Your task to perform on an android device: Show the shopping cart on newegg.com. Image 0: 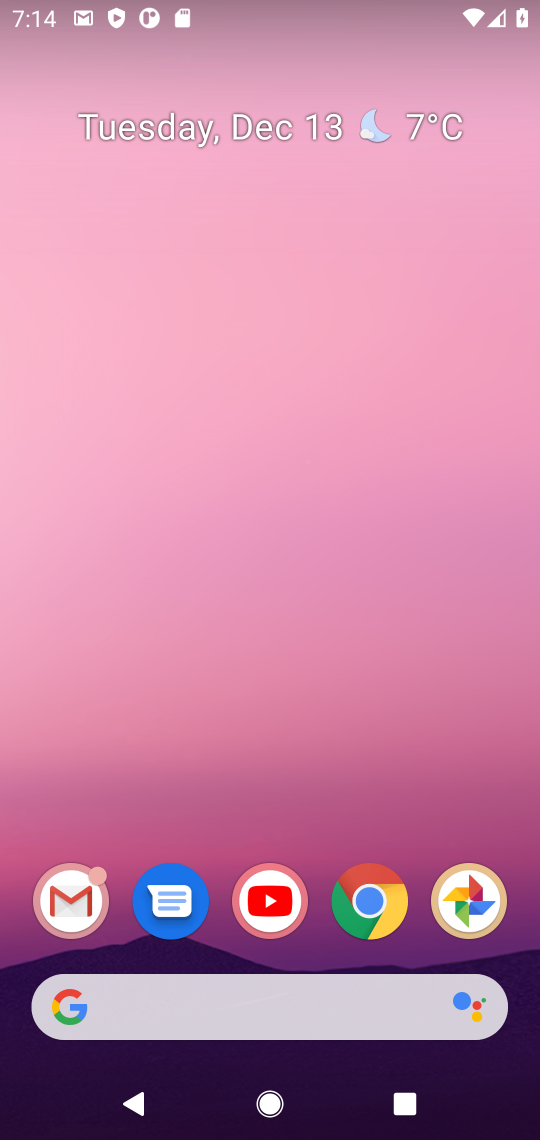
Step 0: click (358, 924)
Your task to perform on an android device: Show the shopping cart on newegg.com. Image 1: 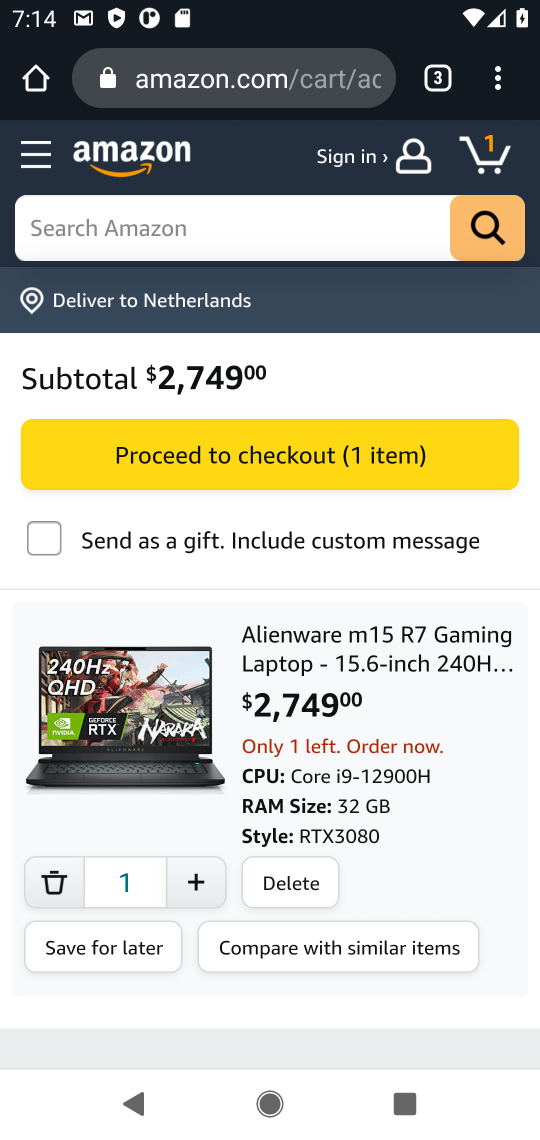
Step 1: press home button
Your task to perform on an android device: Show the shopping cart on newegg.com. Image 2: 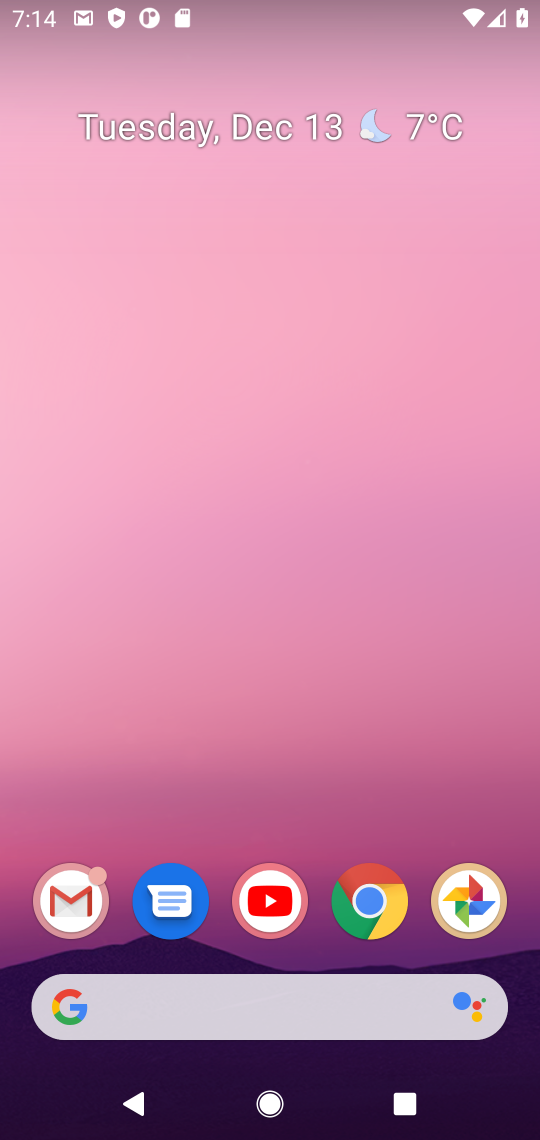
Step 2: click (368, 909)
Your task to perform on an android device: Show the shopping cart on newegg.com. Image 3: 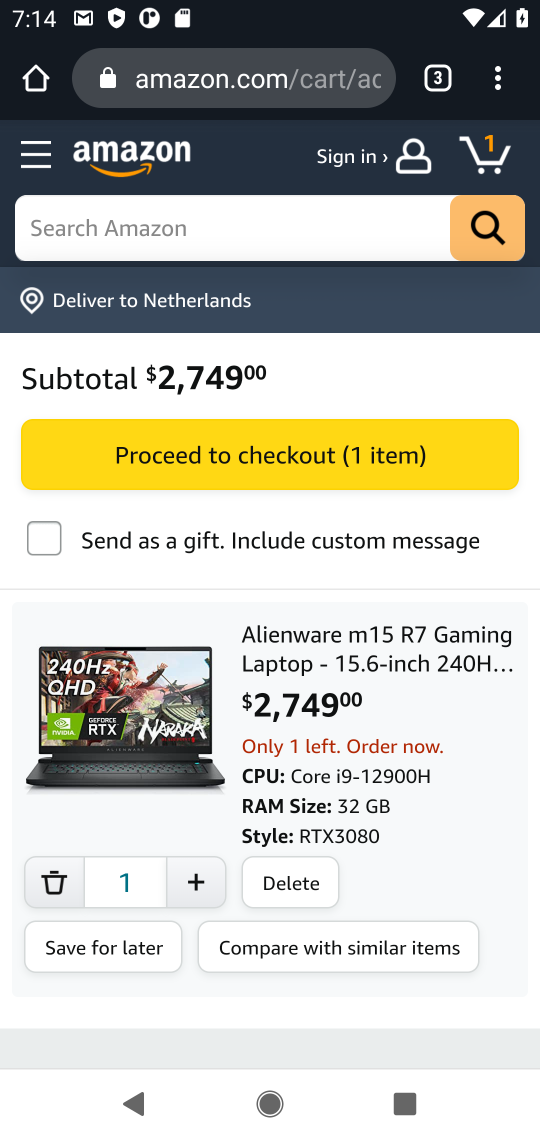
Step 3: click (449, 69)
Your task to perform on an android device: Show the shopping cart on newegg.com. Image 4: 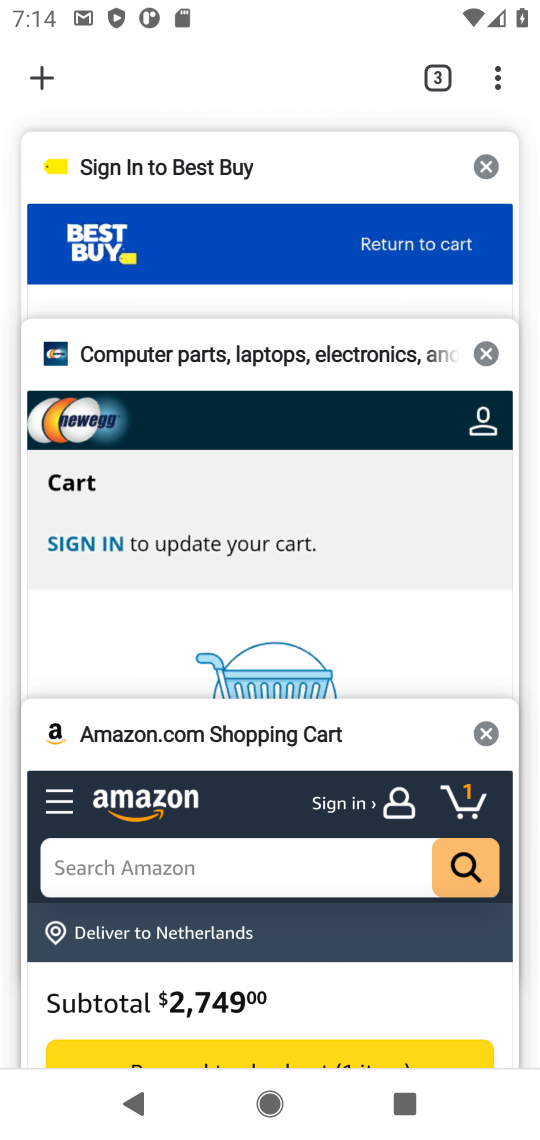
Step 4: click (270, 509)
Your task to perform on an android device: Show the shopping cart on newegg.com. Image 5: 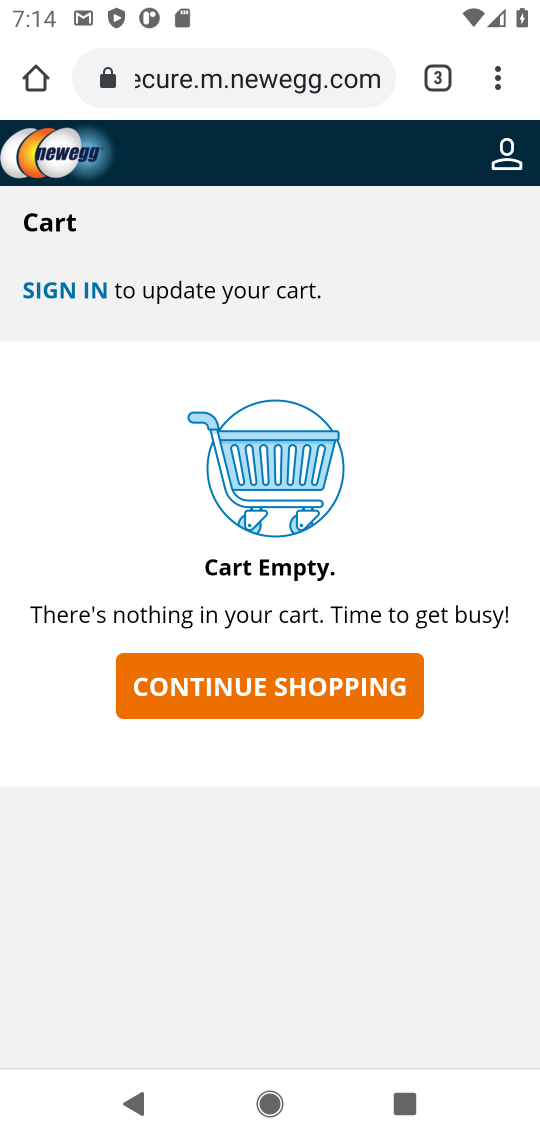
Step 5: task complete